Your task to perform on an android device: Go to internet settings Image 0: 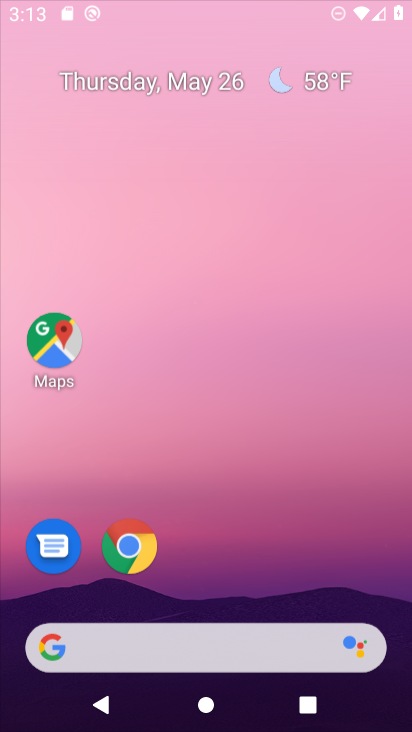
Step 0: click (259, 36)
Your task to perform on an android device: Go to internet settings Image 1: 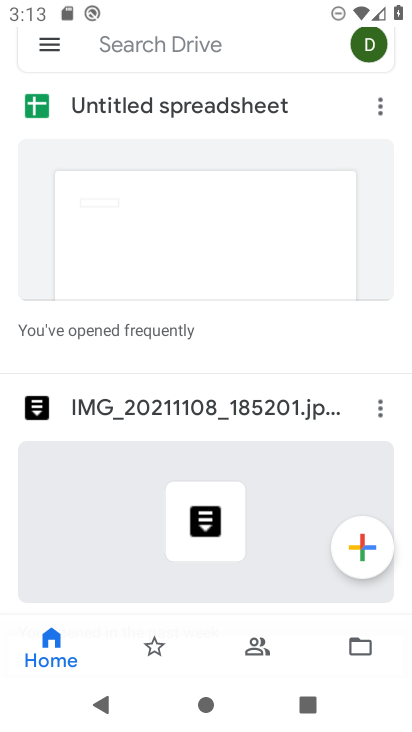
Step 1: press home button
Your task to perform on an android device: Go to internet settings Image 2: 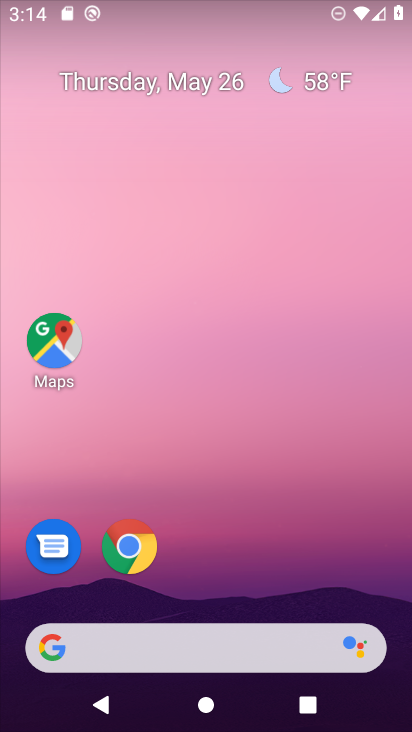
Step 2: drag from (216, 590) to (223, 56)
Your task to perform on an android device: Go to internet settings Image 3: 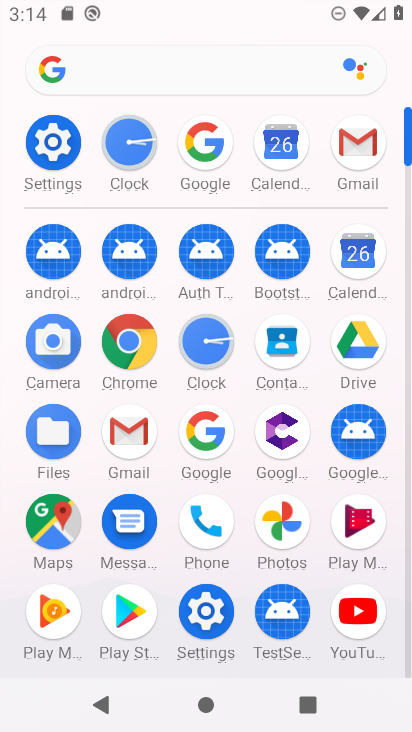
Step 3: click (202, 604)
Your task to perform on an android device: Go to internet settings Image 4: 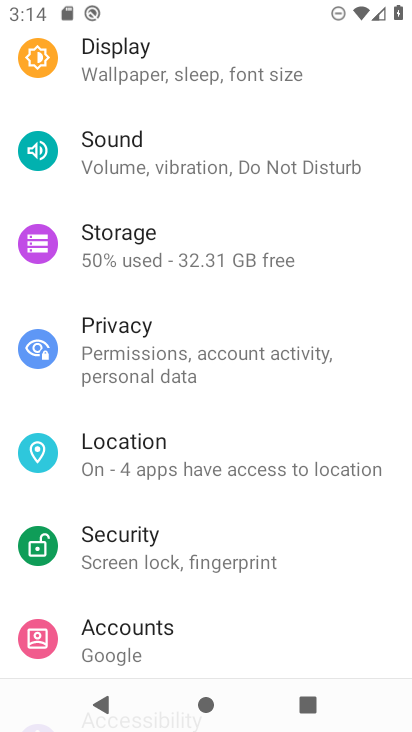
Step 4: drag from (181, 136) to (203, 670)
Your task to perform on an android device: Go to internet settings Image 5: 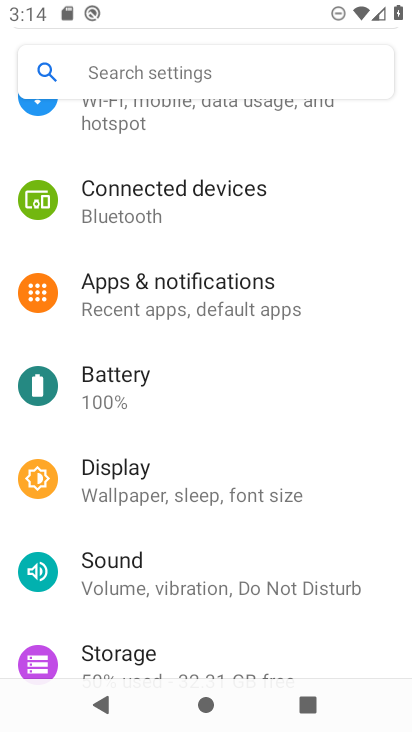
Step 5: drag from (170, 159) to (214, 684)
Your task to perform on an android device: Go to internet settings Image 6: 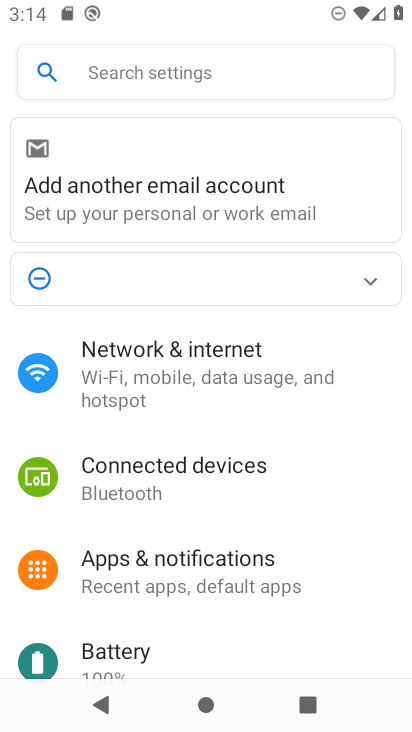
Step 6: click (187, 376)
Your task to perform on an android device: Go to internet settings Image 7: 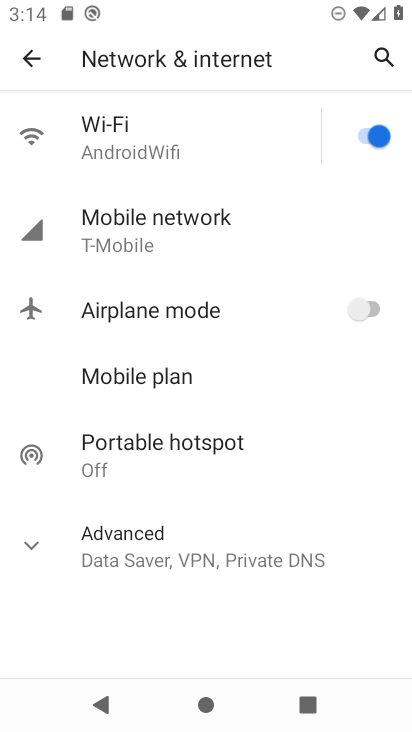
Step 7: click (33, 541)
Your task to perform on an android device: Go to internet settings Image 8: 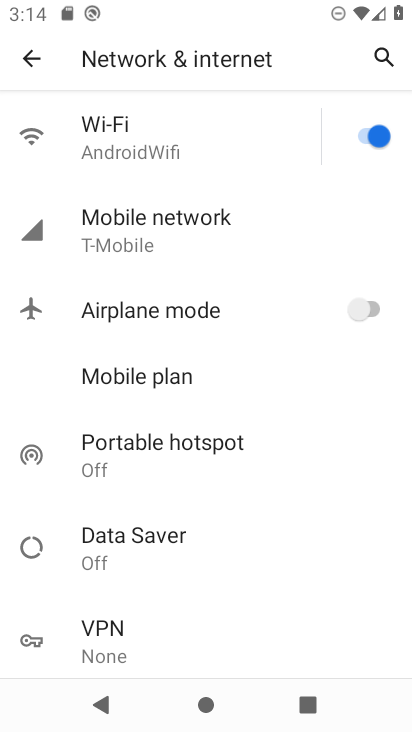
Step 8: task complete